Your task to perform on an android device: Show me productivity apps on the Play Store Image 0: 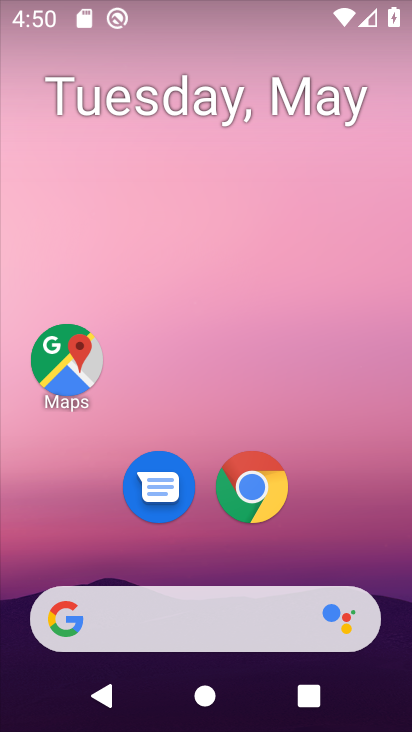
Step 0: drag from (319, 568) to (300, 16)
Your task to perform on an android device: Show me productivity apps on the Play Store Image 1: 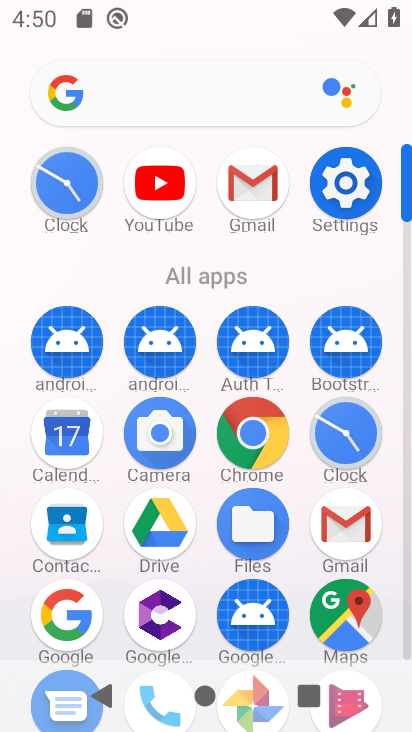
Step 1: click (408, 649)
Your task to perform on an android device: Show me productivity apps on the Play Store Image 2: 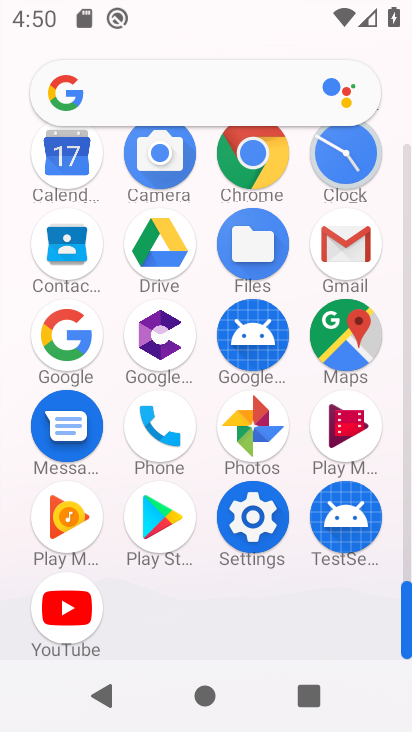
Step 2: click (168, 549)
Your task to perform on an android device: Show me productivity apps on the Play Store Image 3: 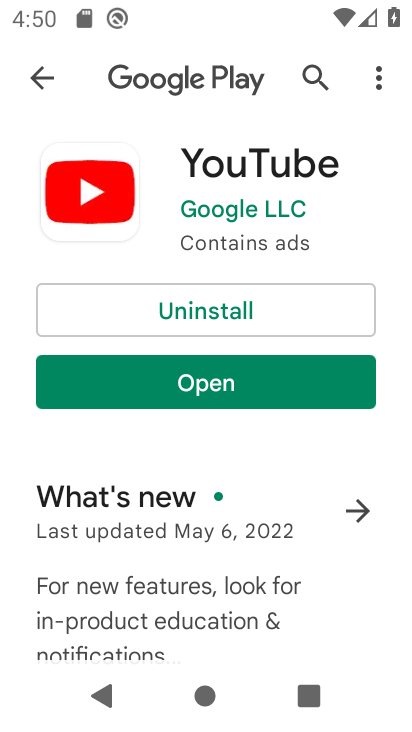
Step 3: click (212, 395)
Your task to perform on an android device: Show me productivity apps on the Play Store Image 4: 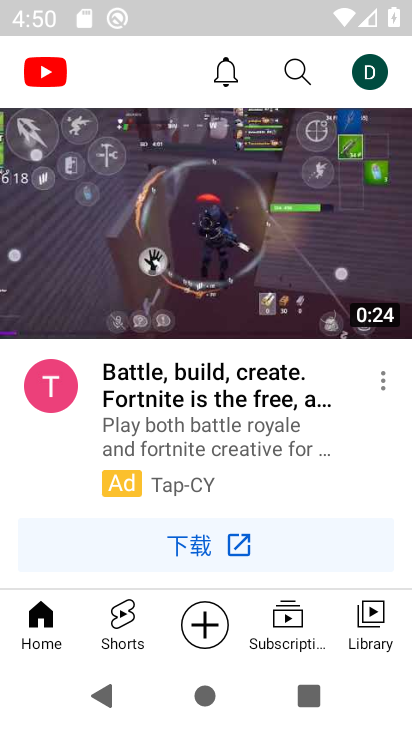
Step 4: press home button
Your task to perform on an android device: Show me productivity apps on the Play Store Image 5: 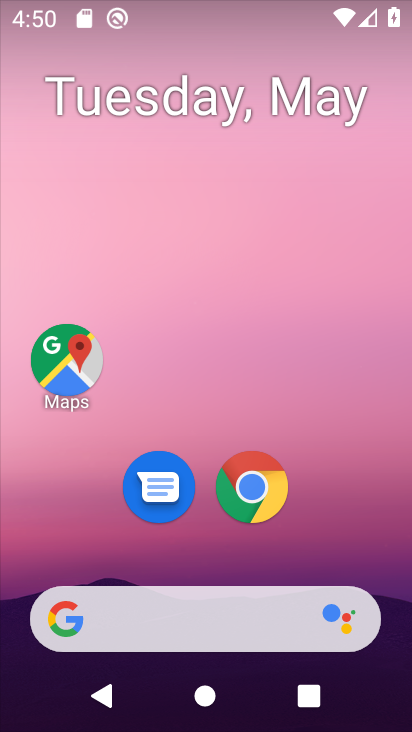
Step 5: drag from (329, 540) to (295, 138)
Your task to perform on an android device: Show me productivity apps on the Play Store Image 6: 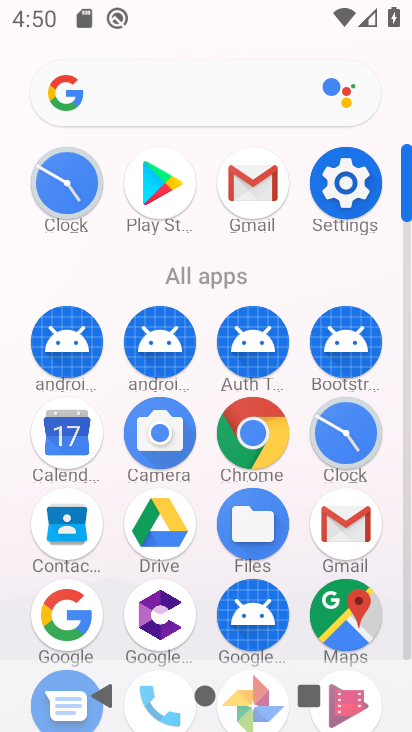
Step 6: click (404, 639)
Your task to perform on an android device: Show me productivity apps on the Play Store Image 7: 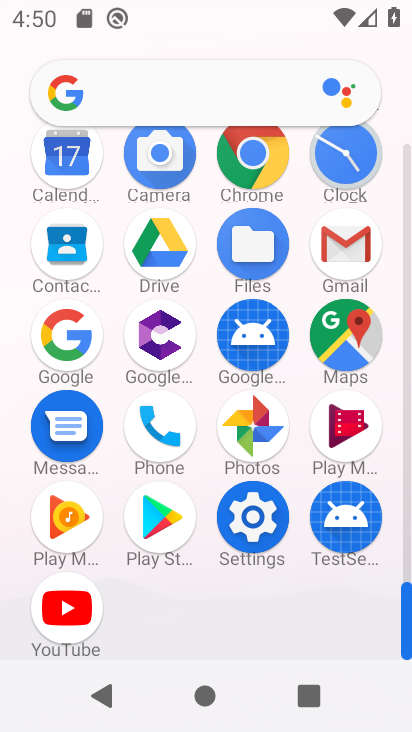
Step 7: click (165, 537)
Your task to perform on an android device: Show me productivity apps on the Play Store Image 8: 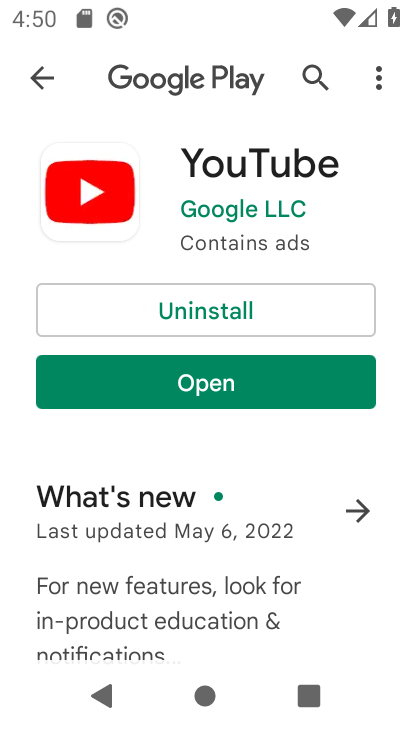
Step 8: click (37, 112)
Your task to perform on an android device: Show me productivity apps on the Play Store Image 9: 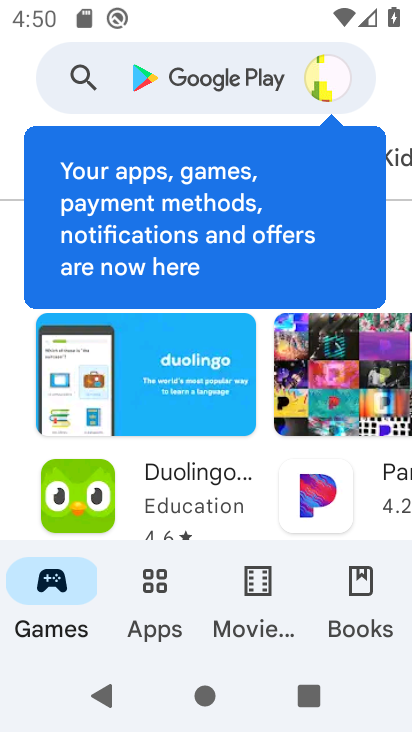
Step 9: click (184, 625)
Your task to perform on an android device: Show me productivity apps on the Play Store Image 10: 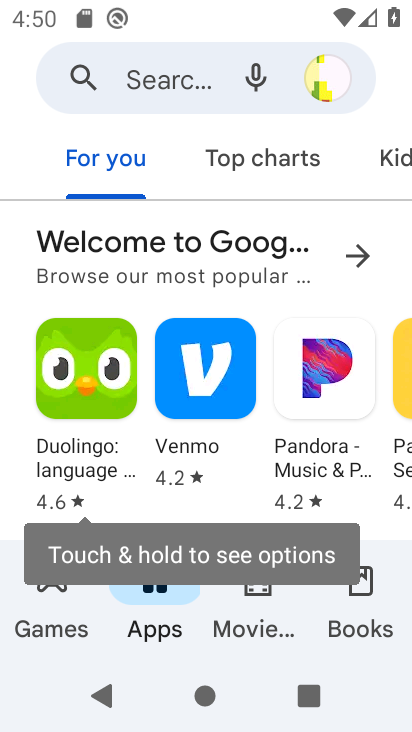
Step 10: click (264, 183)
Your task to perform on an android device: Show me productivity apps on the Play Store Image 11: 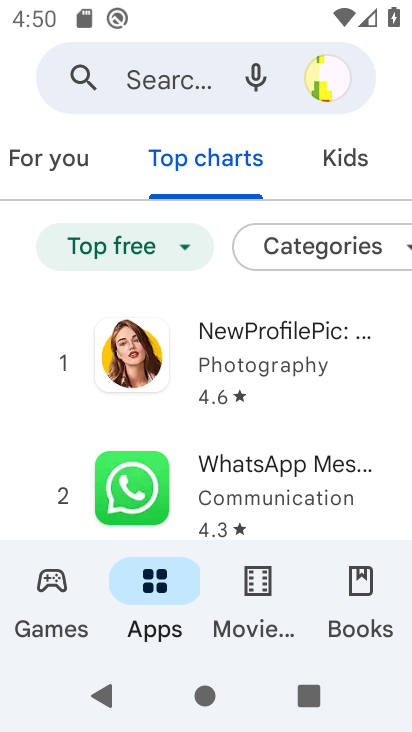
Step 11: click (297, 260)
Your task to perform on an android device: Show me productivity apps on the Play Store Image 12: 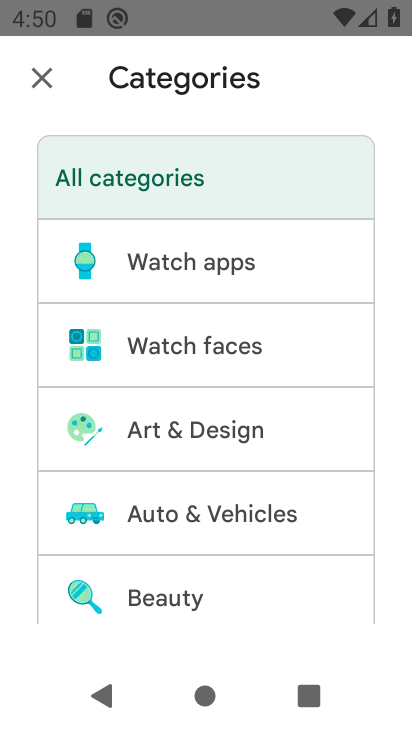
Step 12: drag from (251, 583) to (259, 104)
Your task to perform on an android device: Show me productivity apps on the Play Store Image 13: 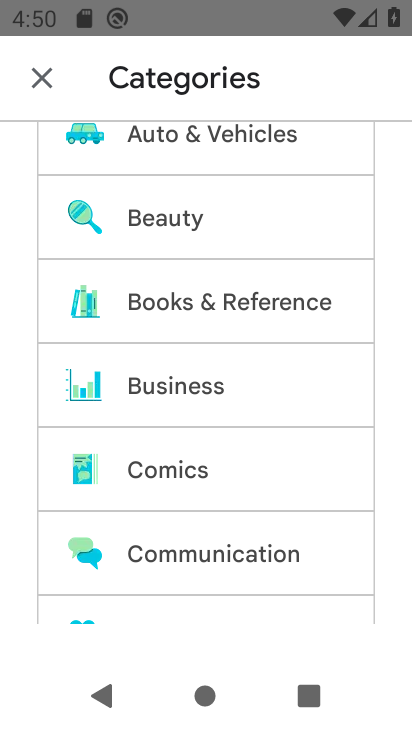
Step 13: drag from (250, 524) to (297, 142)
Your task to perform on an android device: Show me productivity apps on the Play Store Image 14: 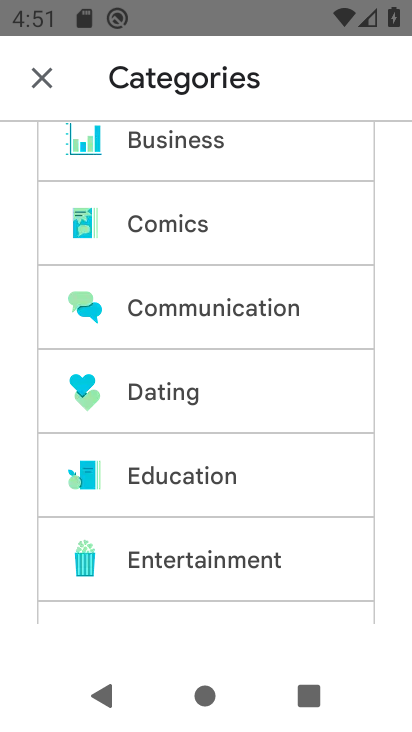
Step 14: drag from (240, 538) to (250, 182)
Your task to perform on an android device: Show me productivity apps on the Play Store Image 15: 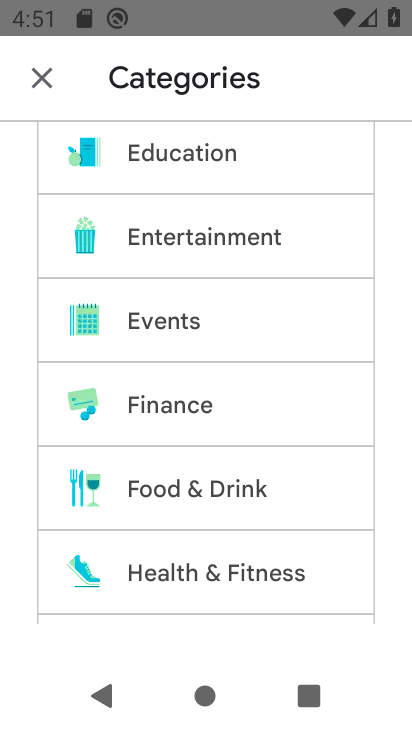
Step 15: drag from (235, 566) to (279, 92)
Your task to perform on an android device: Show me productivity apps on the Play Store Image 16: 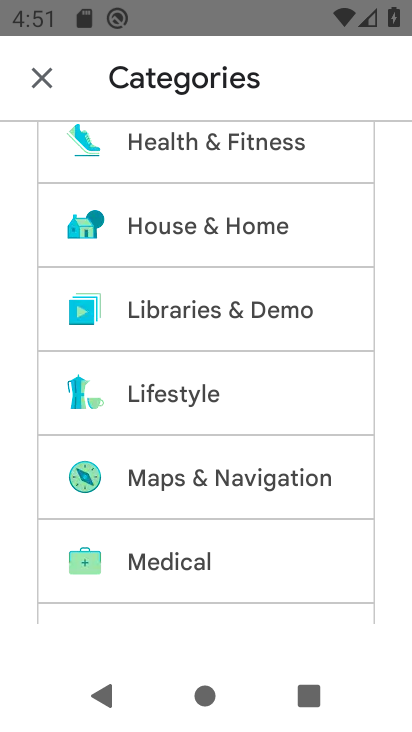
Step 16: drag from (232, 573) to (278, 234)
Your task to perform on an android device: Show me productivity apps on the Play Store Image 17: 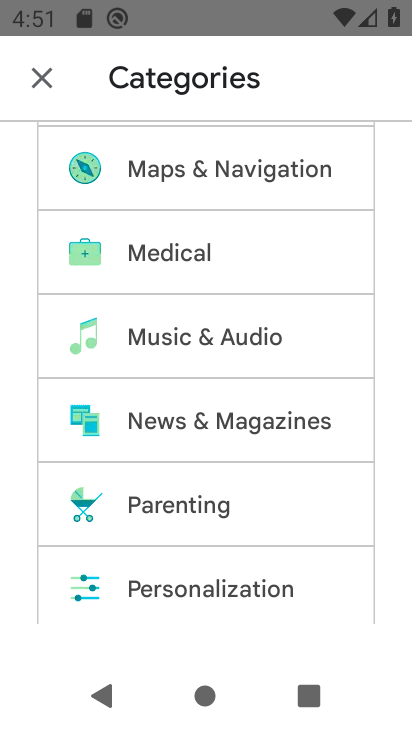
Step 17: drag from (225, 569) to (253, 323)
Your task to perform on an android device: Show me productivity apps on the Play Store Image 18: 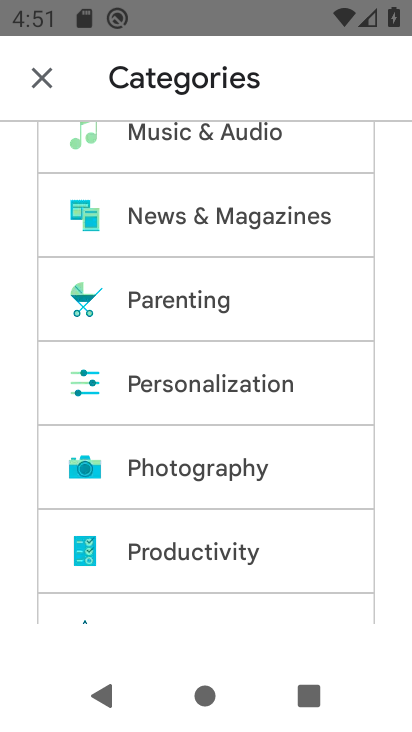
Step 18: click (240, 576)
Your task to perform on an android device: Show me productivity apps on the Play Store Image 19: 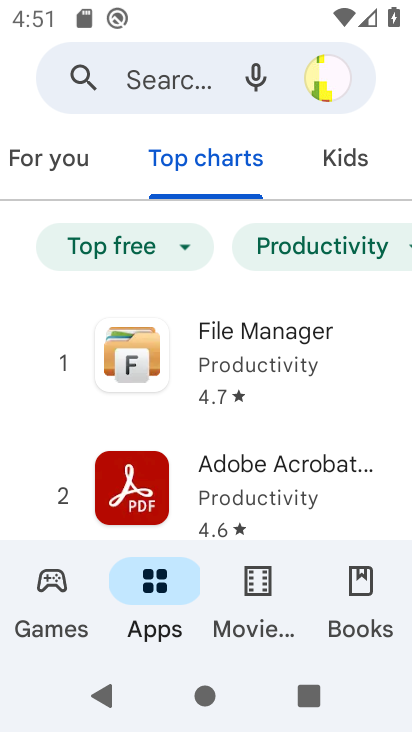
Step 19: task complete